Your task to perform on an android device: What's the weather today? Image 0: 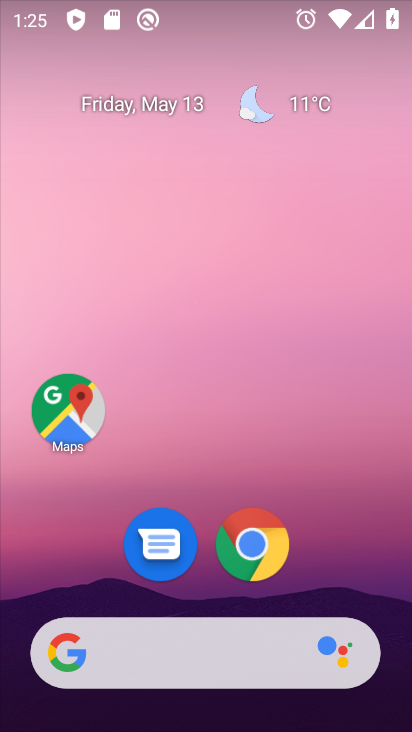
Step 0: click (252, 547)
Your task to perform on an android device: What's the weather today? Image 1: 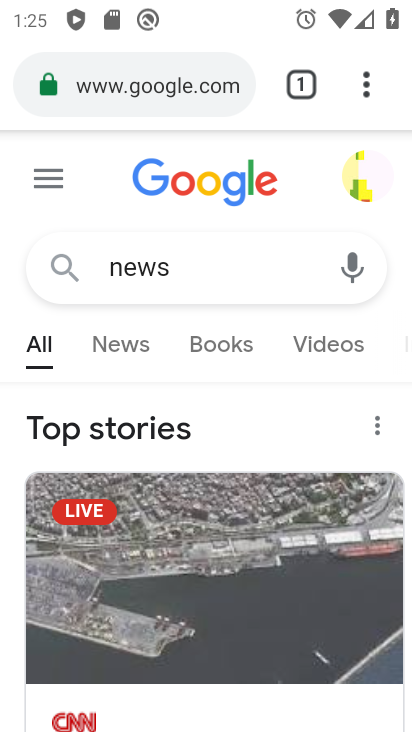
Step 1: click (166, 91)
Your task to perform on an android device: What's the weather today? Image 2: 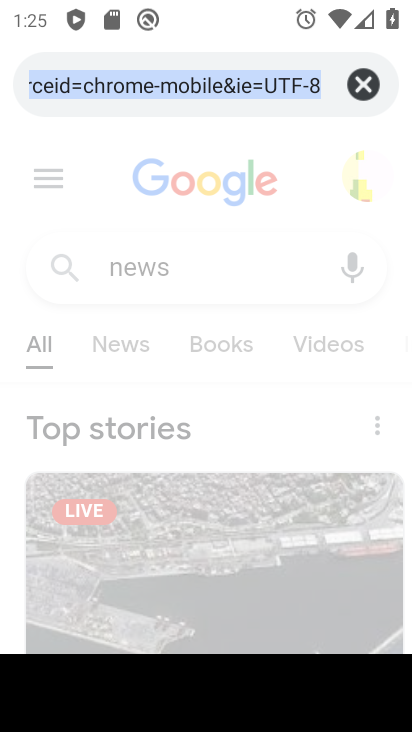
Step 2: type "weather"
Your task to perform on an android device: What's the weather today? Image 3: 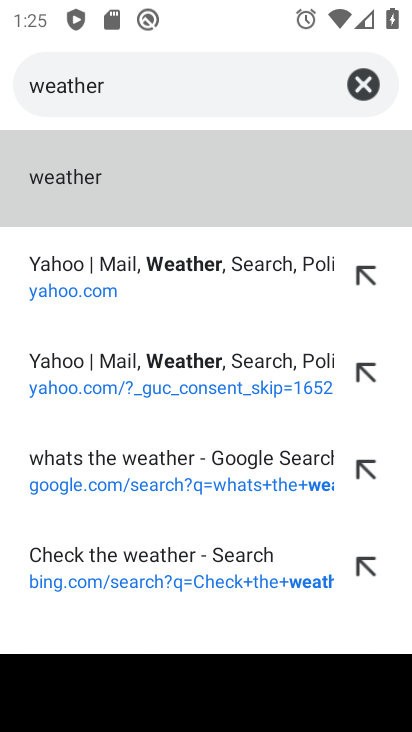
Step 3: click (186, 175)
Your task to perform on an android device: What's the weather today? Image 4: 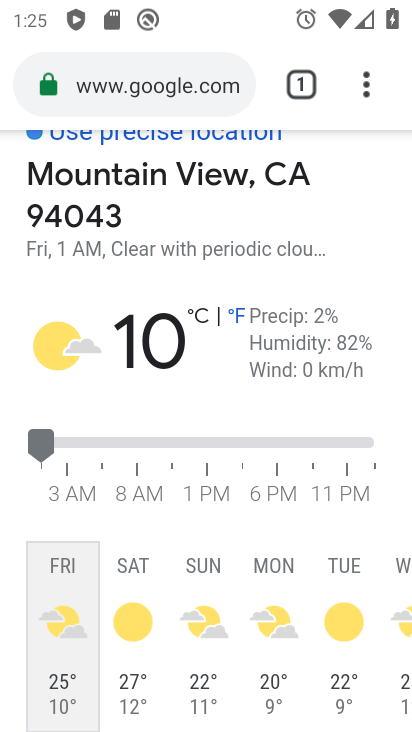
Step 4: task complete